Your task to perform on an android device: turn on priority inbox in the gmail app Image 0: 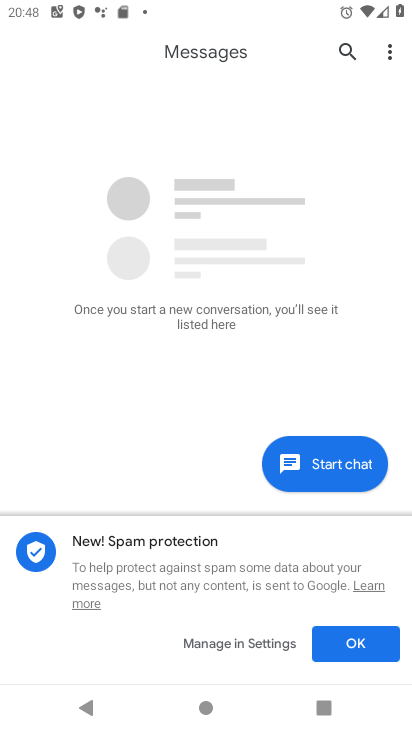
Step 0: press back button
Your task to perform on an android device: turn on priority inbox in the gmail app Image 1: 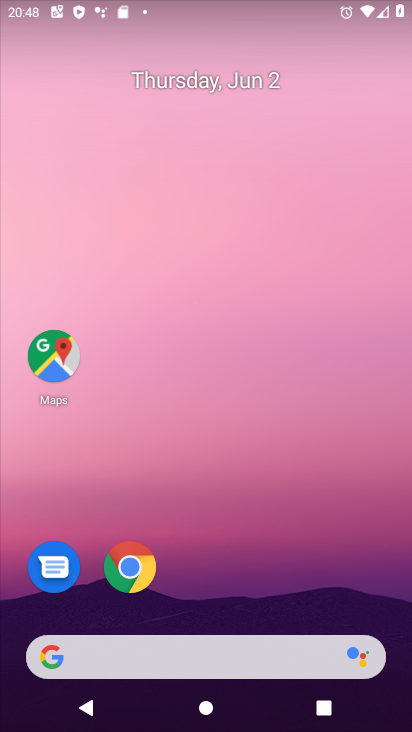
Step 1: drag from (289, 569) to (146, 171)
Your task to perform on an android device: turn on priority inbox in the gmail app Image 2: 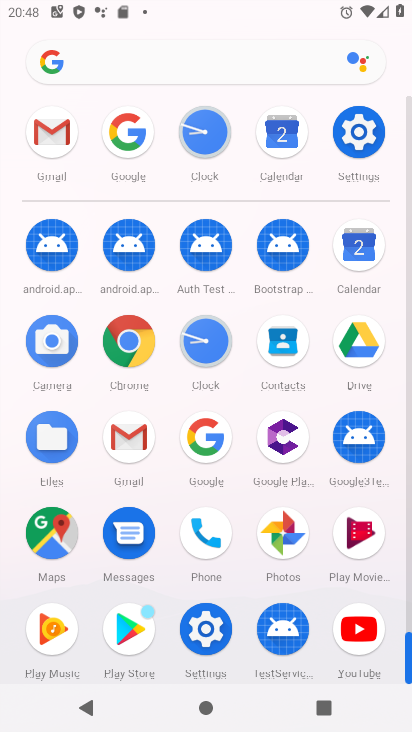
Step 2: click (53, 127)
Your task to perform on an android device: turn on priority inbox in the gmail app Image 3: 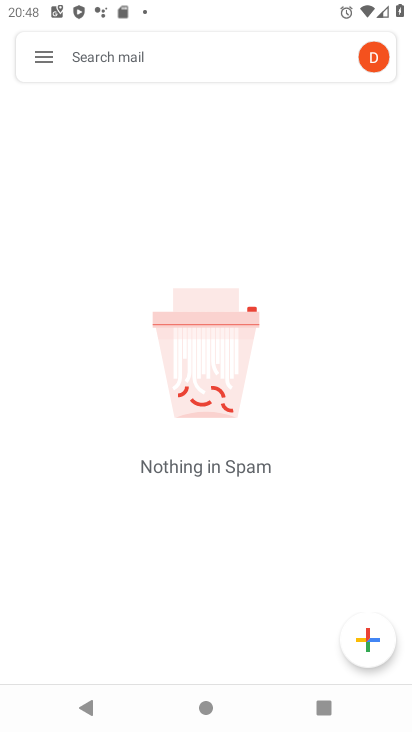
Step 3: click (44, 55)
Your task to perform on an android device: turn on priority inbox in the gmail app Image 4: 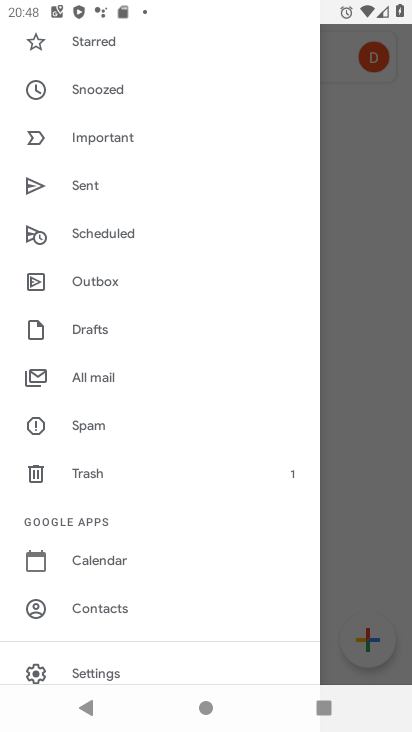
Step 4: drag from (102, 503) to (102, 424)
Your task to perform on an android device: turn on priority inbox in the gmail app Image 5: 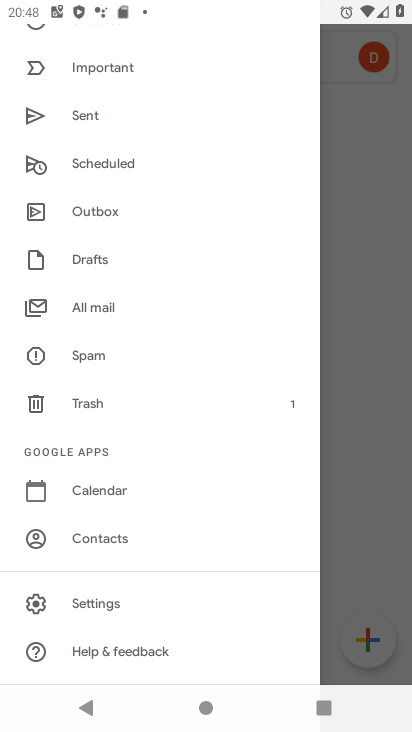
Step 5: click (114, 602)
Your task to perform on an android device: turn on priority inbox in the gmail app Image 6: 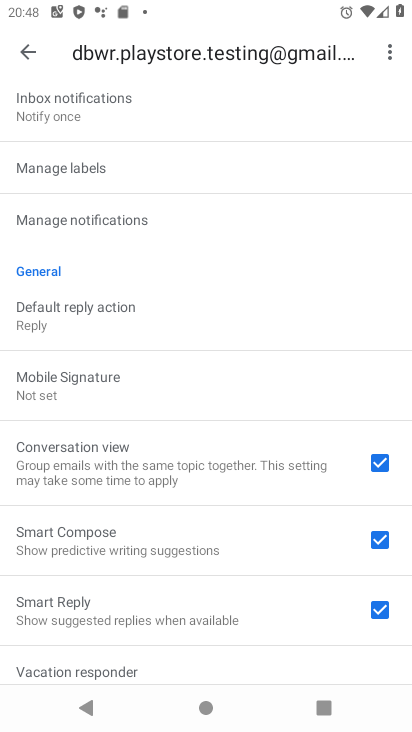
Step 6: task complete